Your task to perform on an android device: Open the web browser Image 0: 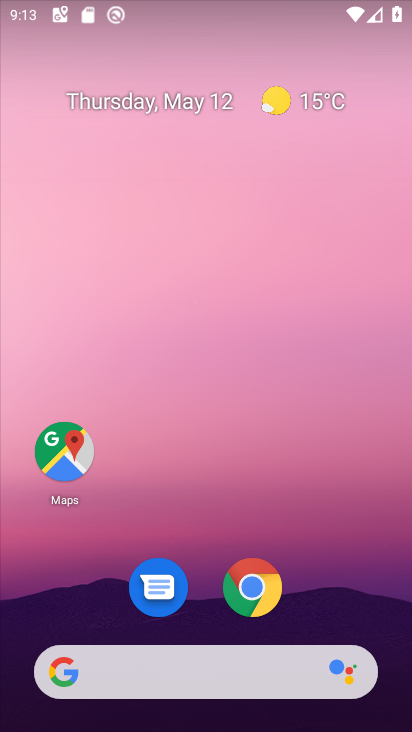
Step 0: click (266, 586)
Your task to perform on an android device: Open the web browser Image 1: 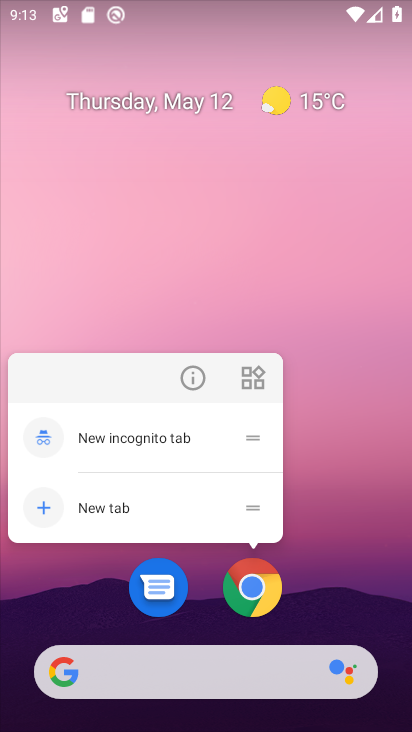
Step 1: click (265, 581)
Your task to perform on an android device: Open the web browser Image 2: 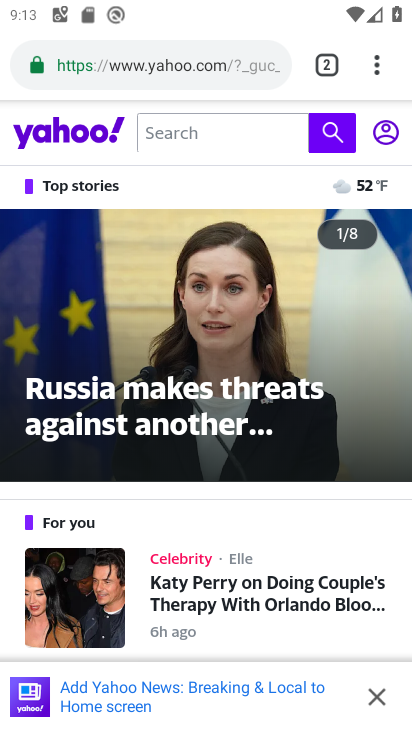
Step 2: task complete